Your task to perform on an android device: choose inbox layout in the gmail app Image 0: 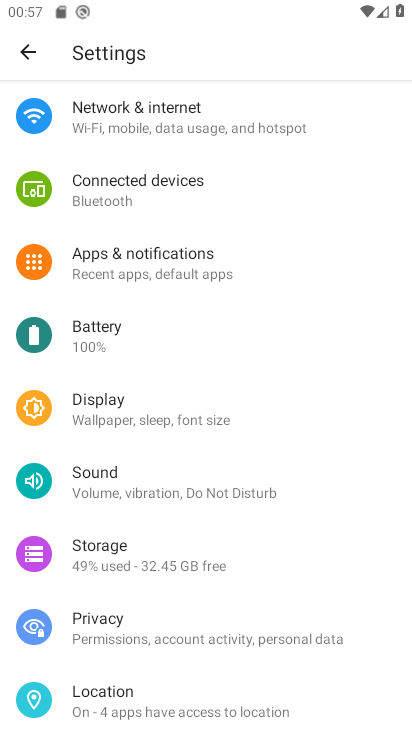
Step 0: press home button
Your task to perform on an android device: choose inbox layout in the gmail app Image 1: 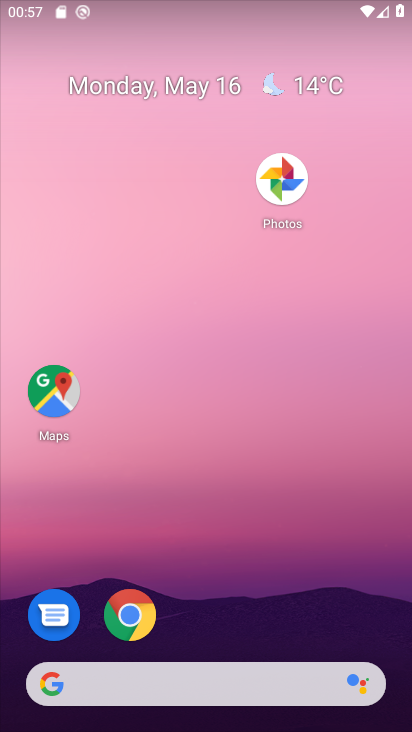
Step 1: drag from (339, 574) to (365, 192)
Your task to perform on an android device: choose inbox layout in the gmail app Image 2: 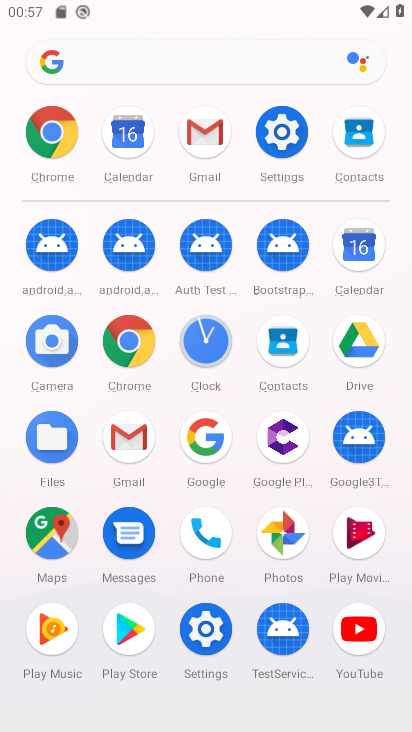
Step 2: click (140, 443)
Your task to perform on an android device: choose inbox layout in the gmail app Image 3: 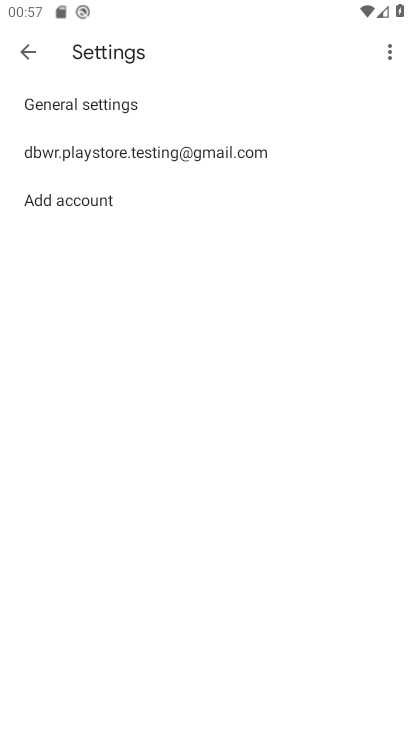
Step 3: click (221, 143)
Your task to perform on an android device: choose inbox layout in the gmail app Image 4: 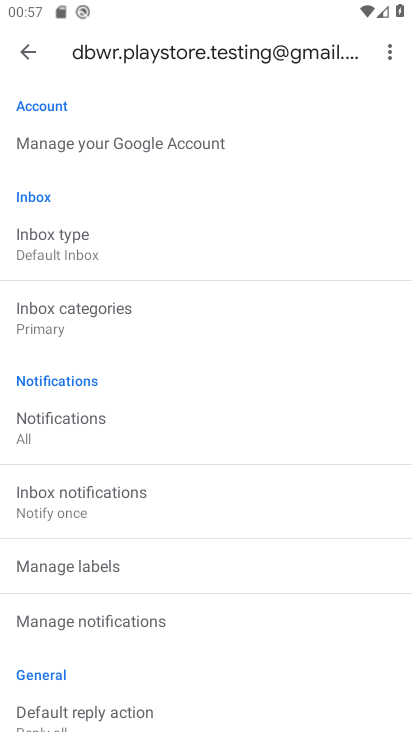
Step 4: drag from (247, 637) to (310, 318)
Your task to perform on an android device: choose inbox layout in the gmail app Image 5: 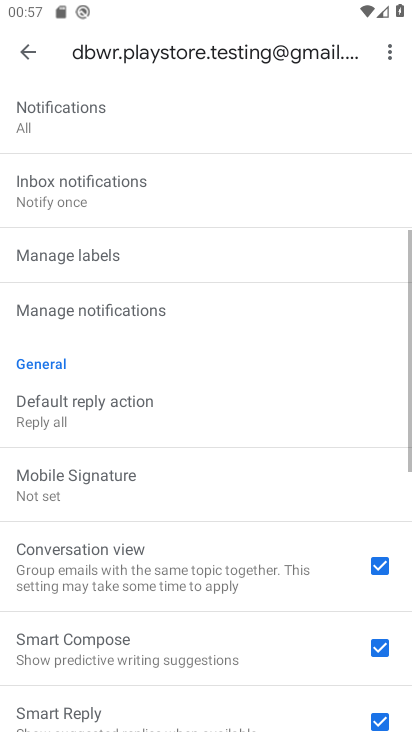
Step 5: drag from (279, 504) to (356, 177)
Your task to perform on an android device: choose inbox layout in the gmail app Image 6: 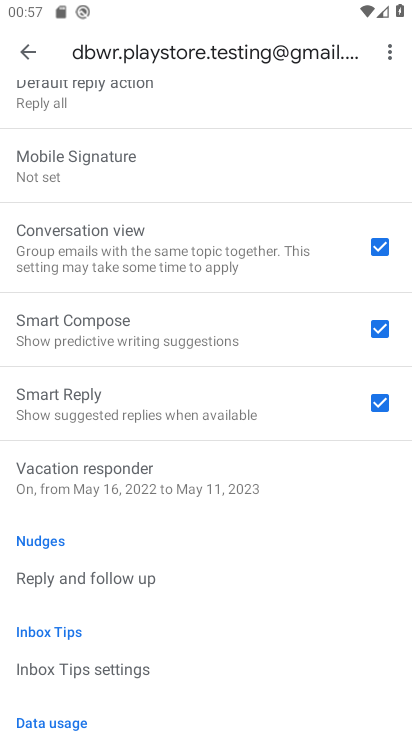
Step 6: drag from (289, 614) to (295, 338)
Your task to perform on an android device: choose inbox layout in the gmail app Image 7: 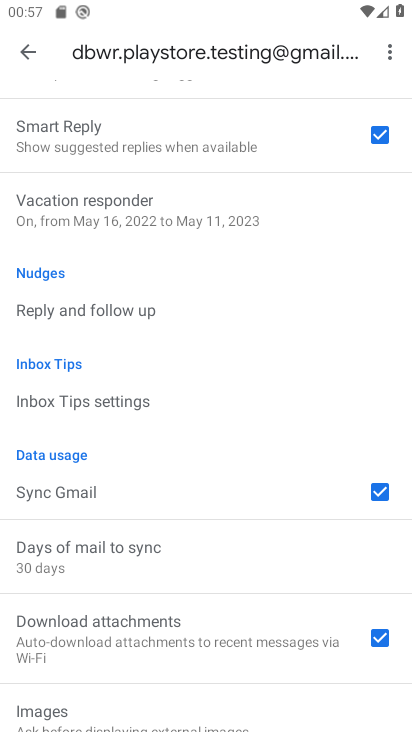
Step 7: drag from (282, 214) to (278, 565)
Your task to perform on an android device: choose inbox layout in the gmail app Image 8: 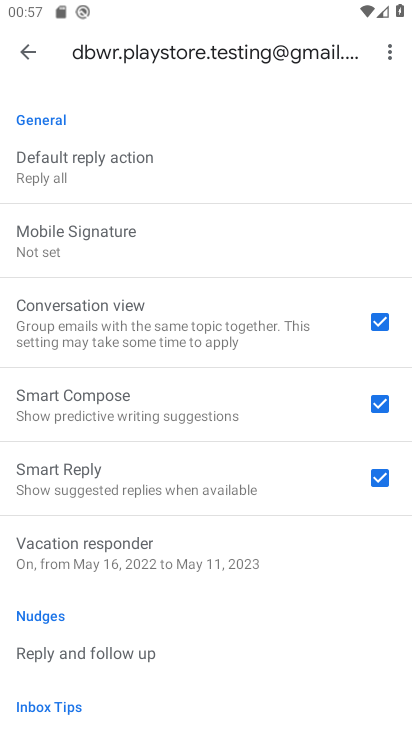
Step 8: drag from (242, 229) to (273, 594)
Your task to perform on an android device: choose inbox layout in the gmail app Image 9: 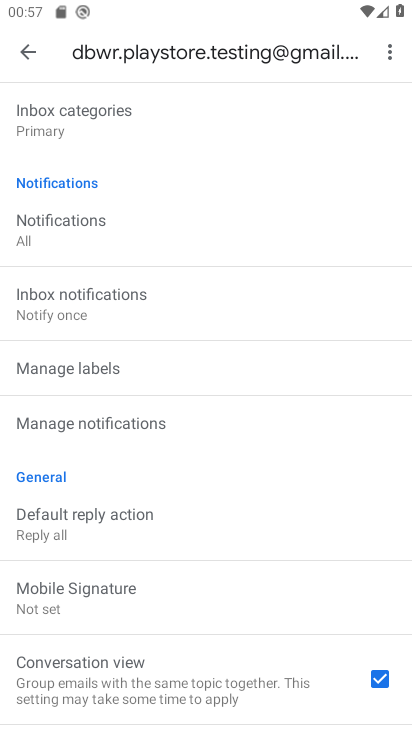
Step 9: drag from (244, 231) to (241, 559)
Your task to perform on an android device: choose inbox layout in the gmail app Image 10: 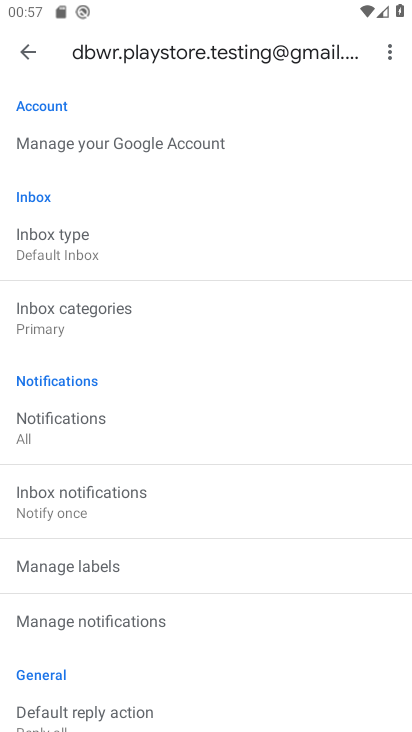
Step 10: click (79, 243)
Your task to perform on an android device: choose inbox layout in the gmail app Image 11: 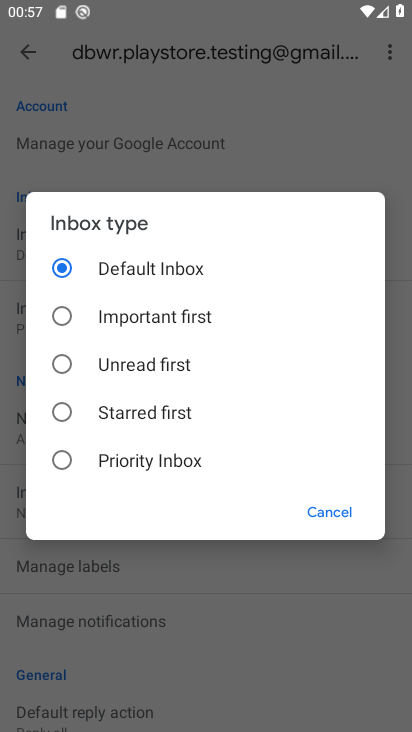
Step 11: click (98, 469)
Your task to perform on an android device: choose inbox layout in the gmail app Image 12: 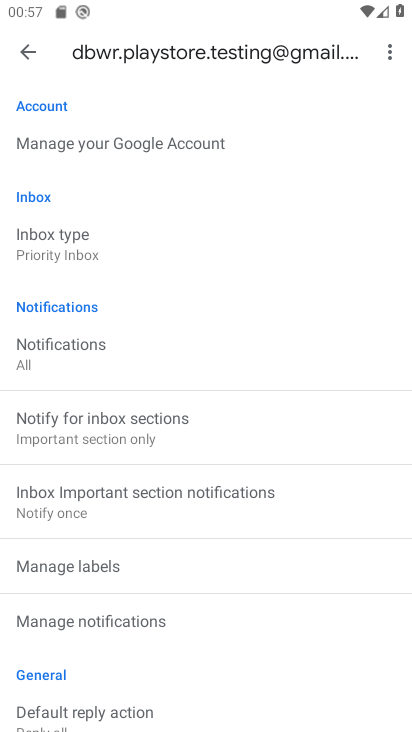
Step 12: task complete